Your task to perform on an android device: check storage Image 0: 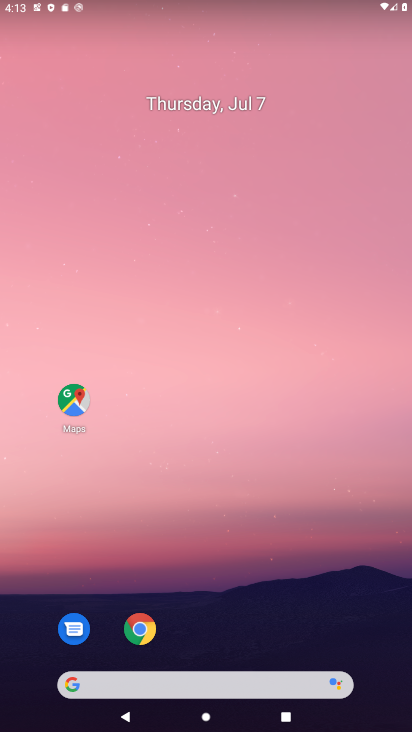
Step 0: drag from (230, 638) to (228, 256)
Your task to perform on an android device: check storage Image 1: 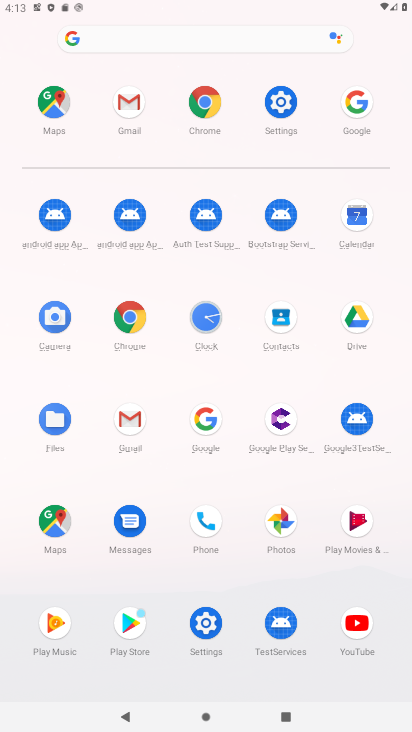
Step 1: click (275, 102)
Your task to perform on an android device: check storage Image 2: 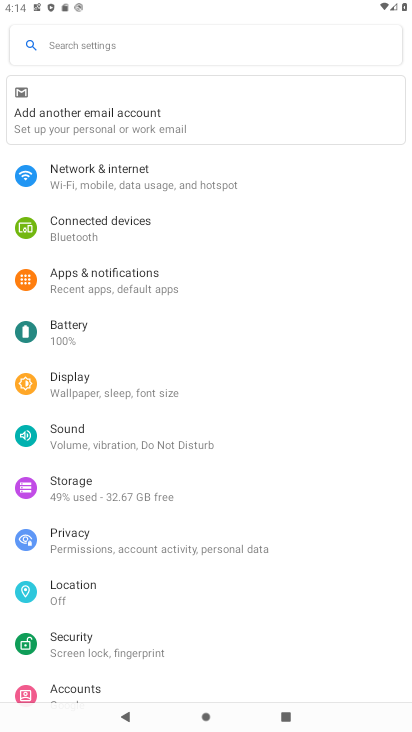
Step 2: click (105, 492)
Your task to perform on an android device: check storage Image 3: 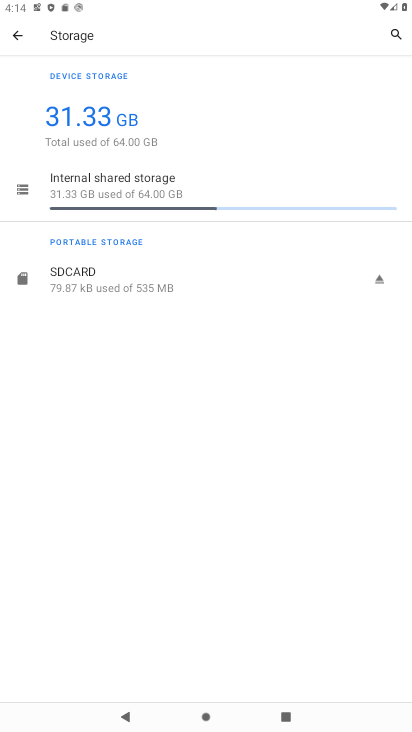
Step 3: task complete